Your task to perform on an android device: Go to accessibility settings Image 0: 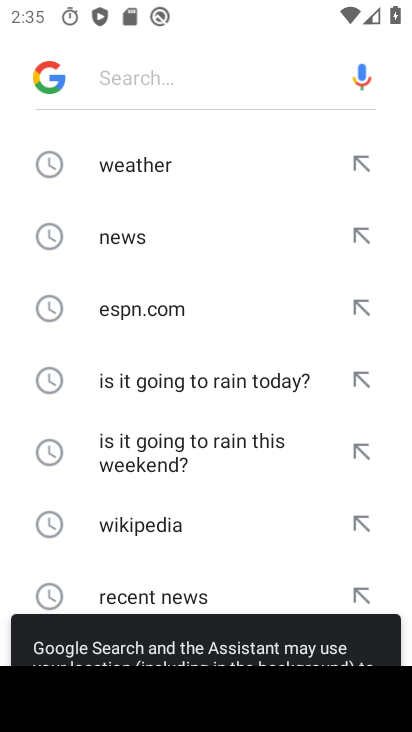
Step 0: press home button
Your task to perform on an android device: Go to accessibility settings Image 1: 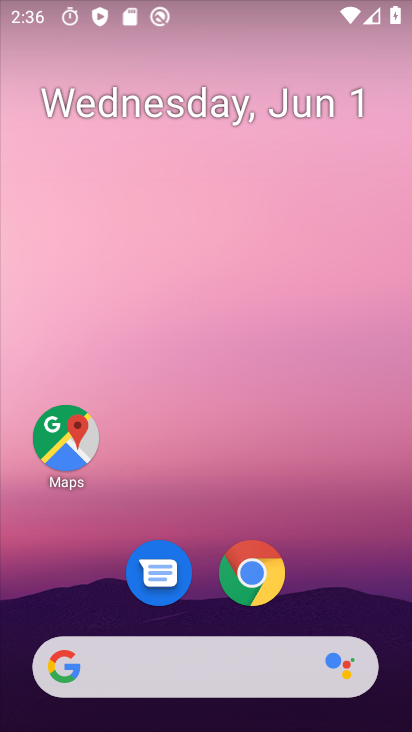
Step 1: drag from (216, 616) to (255, 197)
Your task to perform on an android device: Go to accessibility settings Image 2: 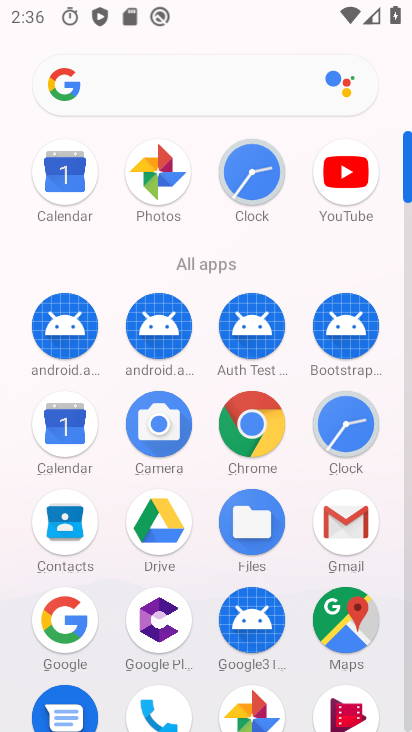
Step 2: drag from (176, 570) to (247, 224)
Your task to perform on an android device: Go to accessibility settings Image 3: 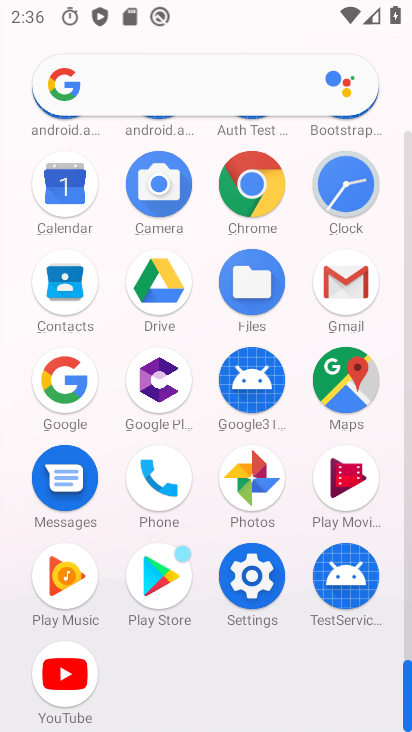
Step 3: click (261, 570)
Your task to perform on an android device: Go to accessibility settings Image 4: 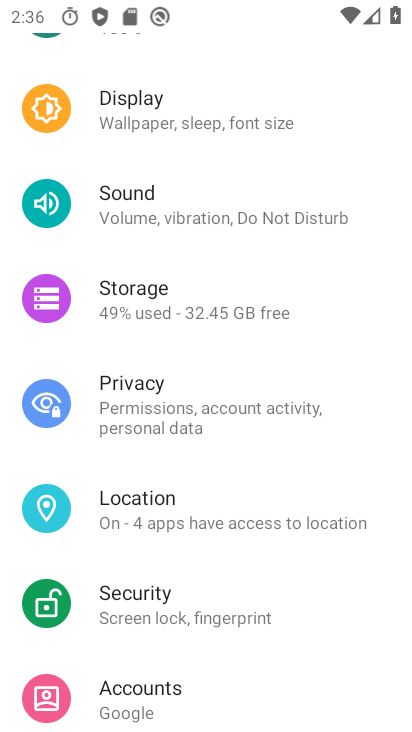
Step 4: drag from (261, 570) to (282, 325)
Your task to perform on an android device: Go to accessibility settings Image 5: 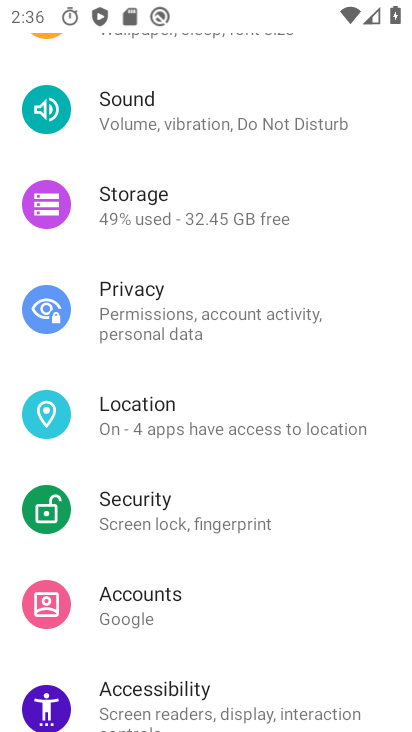
Step 5: drag from (284, 541) to (291, 390)
Your task to perform on an android device: Go to accessibility settings Image 6: 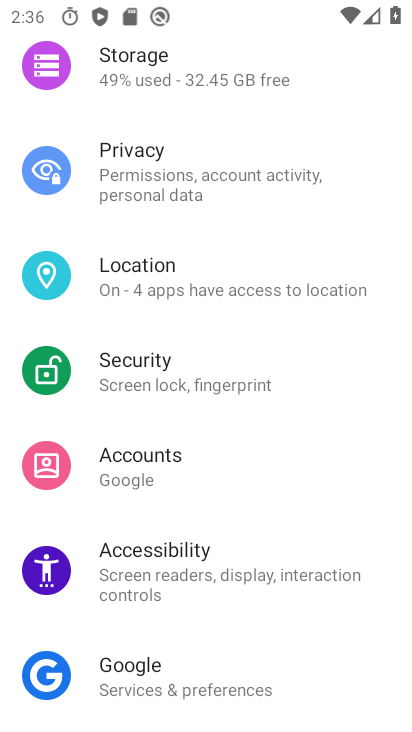
Step 6: click (273, 539)
Your task to perform on an android device: Go to accessibility settings Image 7: 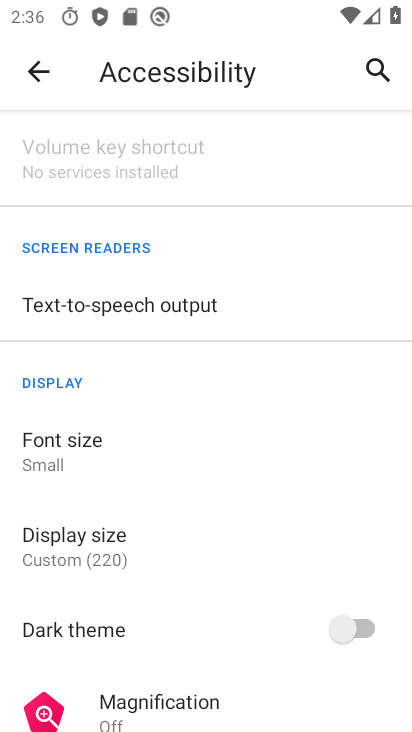
Step 7: task complete